Your task to perform on an android device: Show me recent news Image 0: 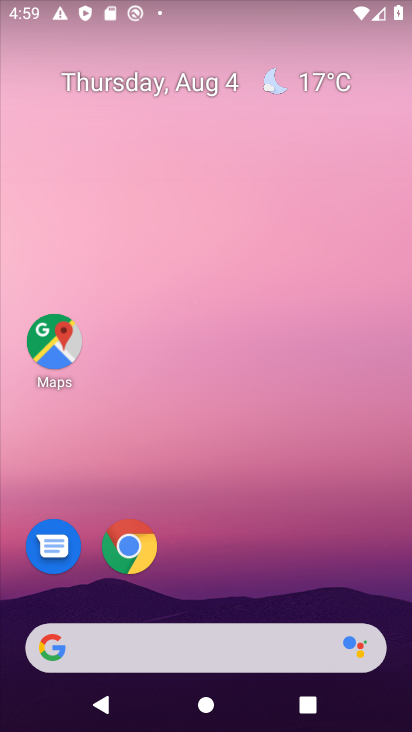
Step 0: drag from (211, 507) to (211, 261)
Your task to perform on an android device: Show me recent news Image 1: 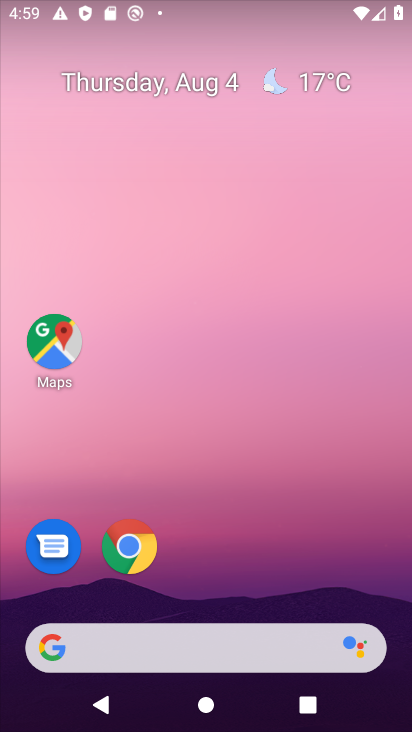
Step 1: drag from (212, 575) to (163, 163)
Your task to perform on an android device: Show me recent news Image 2: 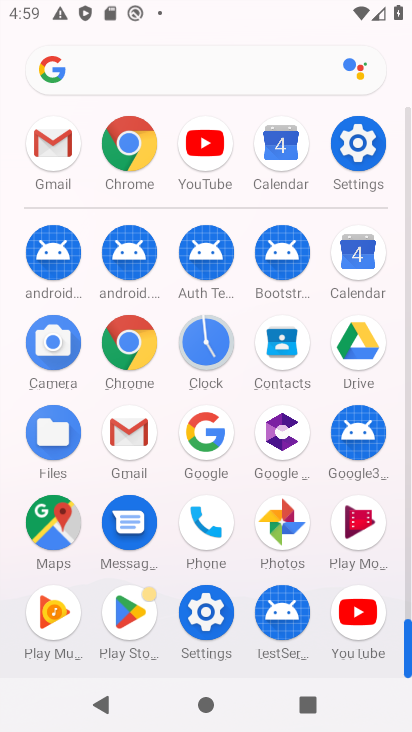
Step 2: click (207, 467)
Your task to perform on an android device: Show me recent news Image 3: 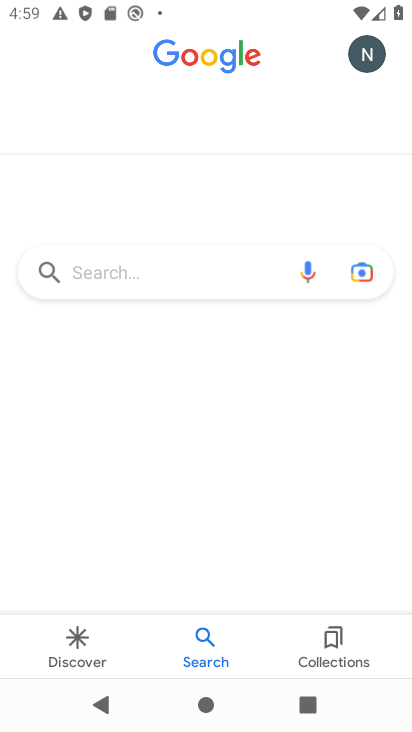
Step 3: click (148, 261)
Your task to perform on an android device: Show me recent news Image 4: 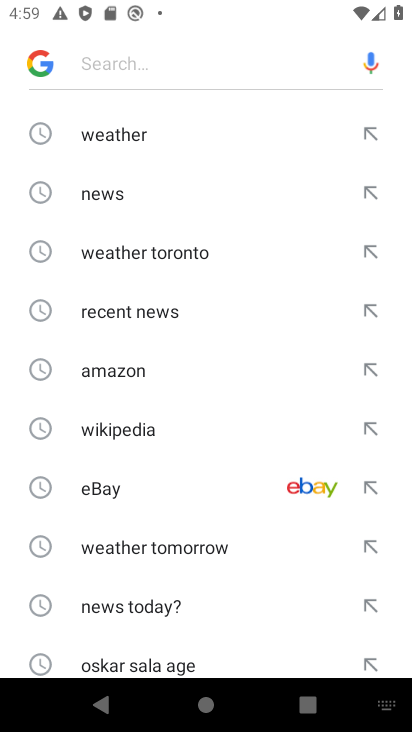
Step 4: click (148, 307)
Your task to perform on an android device: Show me recent news Image 5: 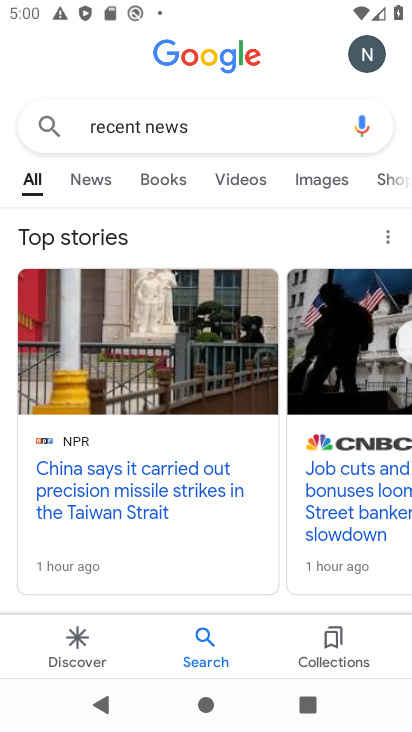
Step 5: task complete